Your task to perform on an android device: turn on wifi Image 0: 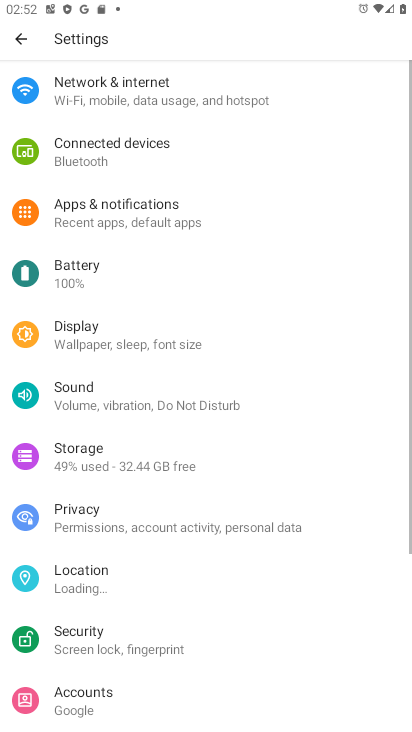
Step 0: click (205, 656)
Your task to perform on an android device: turn on wifi Image 1: 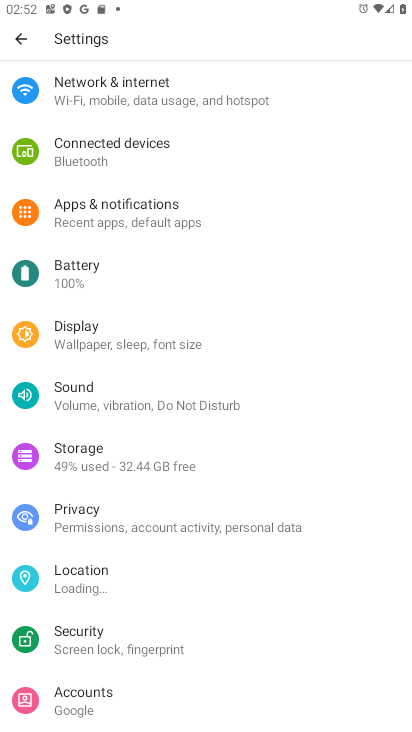
Step 1: click (135, 102)
Your task to perform on an android device: turn on wifi Image 2: 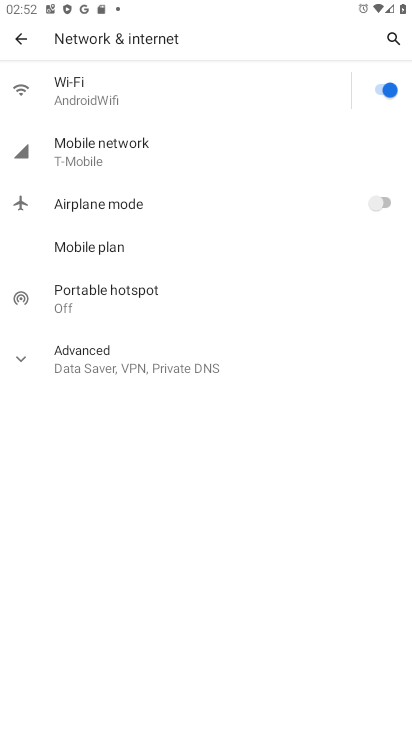
Step 2: task complete